Your task to perform on an android device: toggle pop-ups in chrome Image 0: 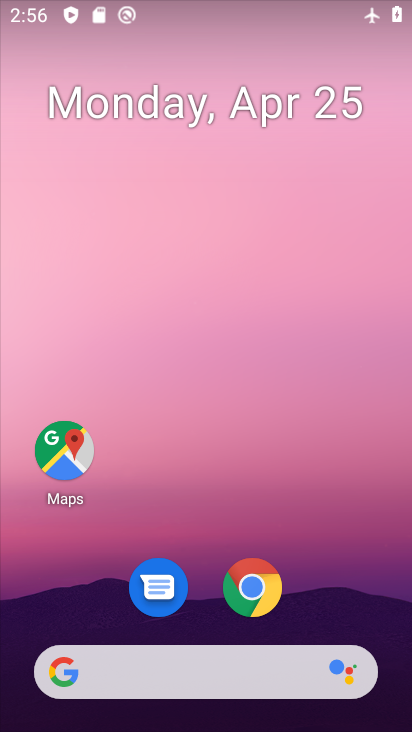
Step 0: click (254, 585)
Your task to perform on an android device: toggle pop-ups in chrome Image 1: 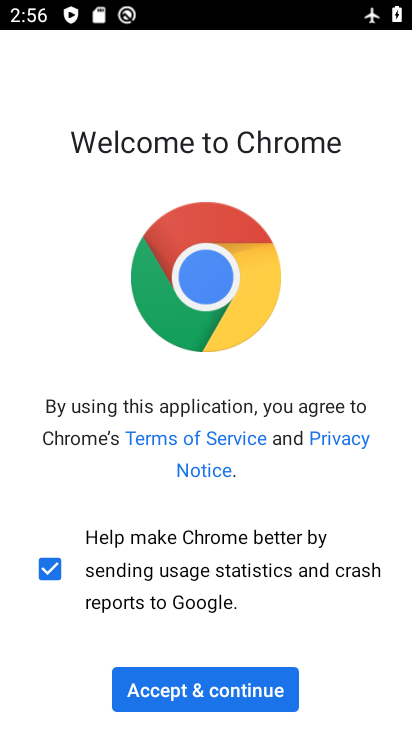
Step 1: click (233, 701)
Your task to perform on an android device: toggle pop-ups in chrome Image 2: 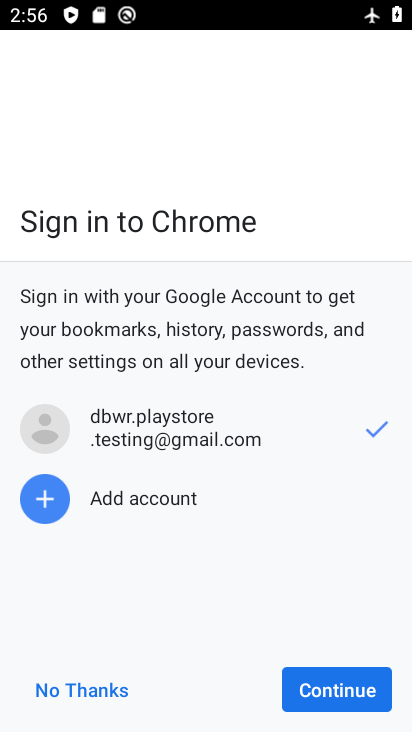
Step 2: click (108, 695)
Your task to perform on an android device: toggle pop-ups in chrome Image 3: 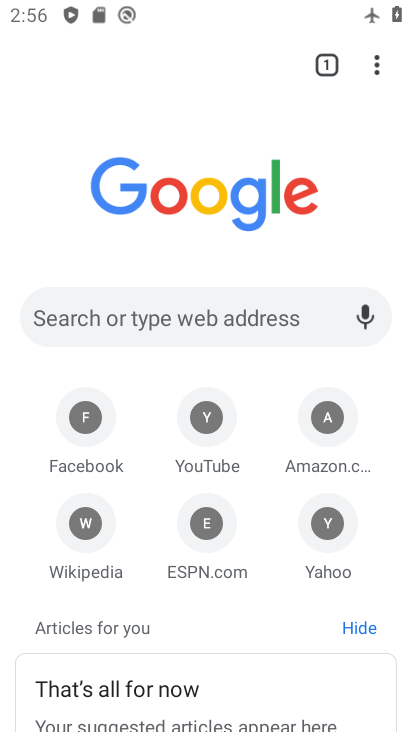
Step 3: click (378, 62)
Your task to perform on an android device: toggle pop-ups in chrome Image 4: 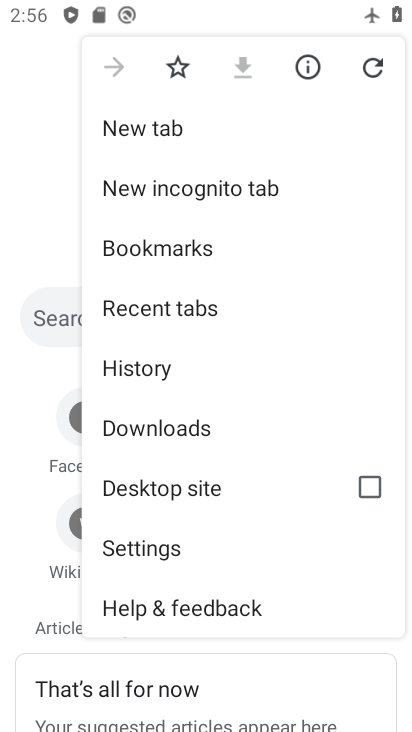
Step 4: drag from (180, 415) to (301, 0)
Your task to perform on an android device: toggle pop-ups in chrome Image 5: 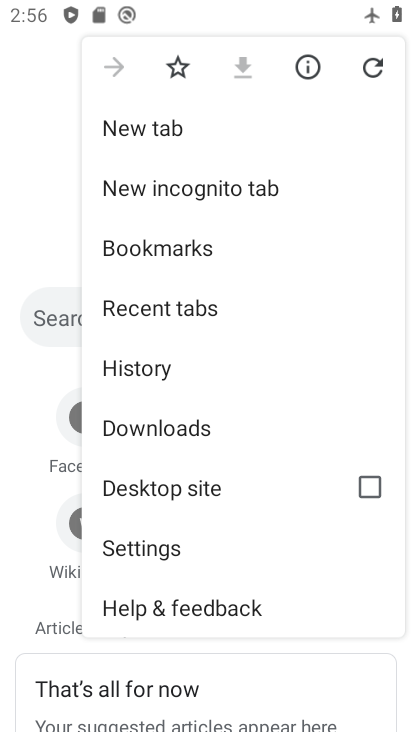
Step 5: click (134, 540)
Your task to perform on an android device: toggle pop-ups in chrome Image 6: 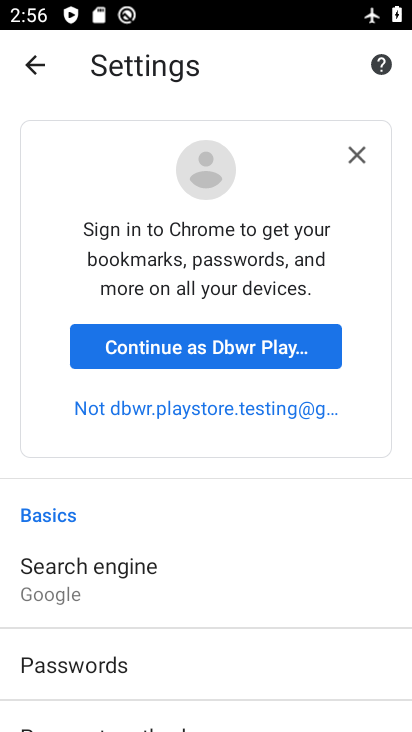
Step 6: drag from (133, 583) to (321, 23)
Your task to perform on an android device: toggle pop-ups in chrome Image 7: 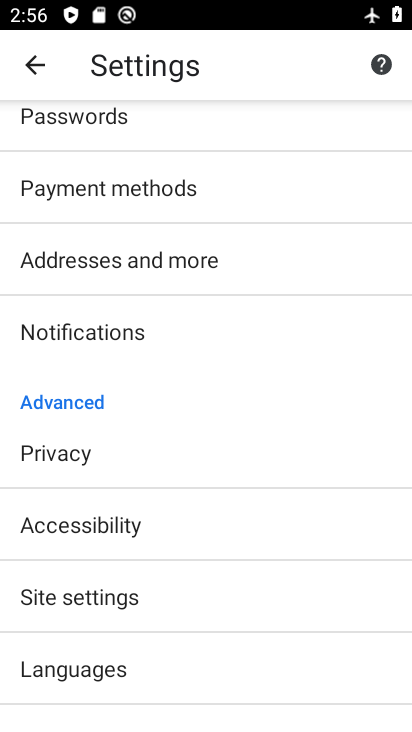
Step 7: click (72, 598)
Your task to perform on an android device: toggle pop-ups in chrome Image 8: 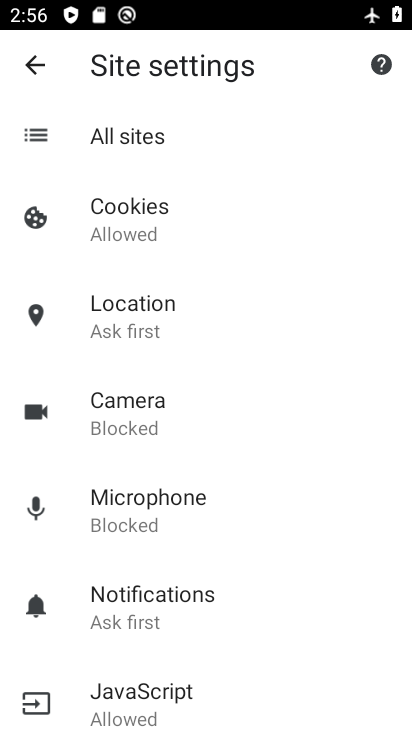
Step 8: drag from (219, 548) to (208, 270)
Your task to perform on an android device: toggle pop-ups in chrome Image 9: 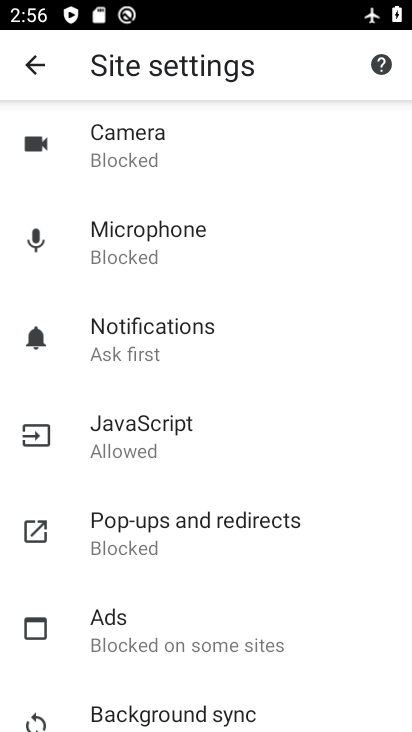
Step 9: click (210, 525)
Your task to perform on an android device: toggle pop-ups in chrome Image 10: 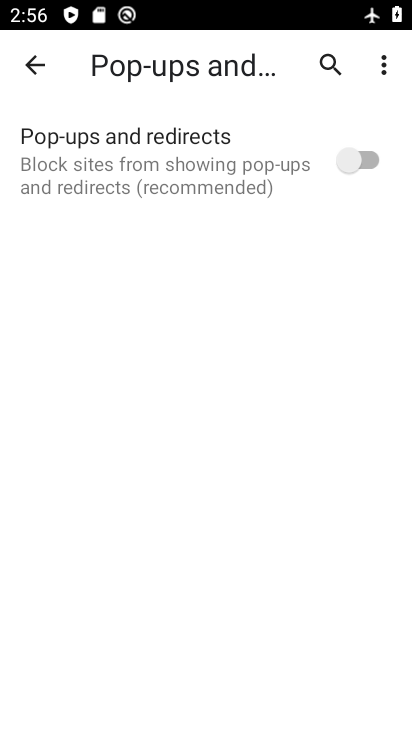
Step 10: click (365, 167)
Your task to perform on an android device: toggle pop-ups in chrome Image 11: 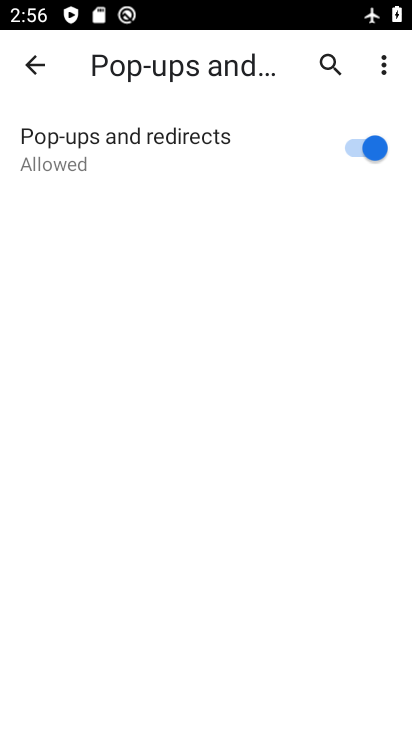
Step 11: task complete